Your task to perform on an android device: See recent photos Image 0: 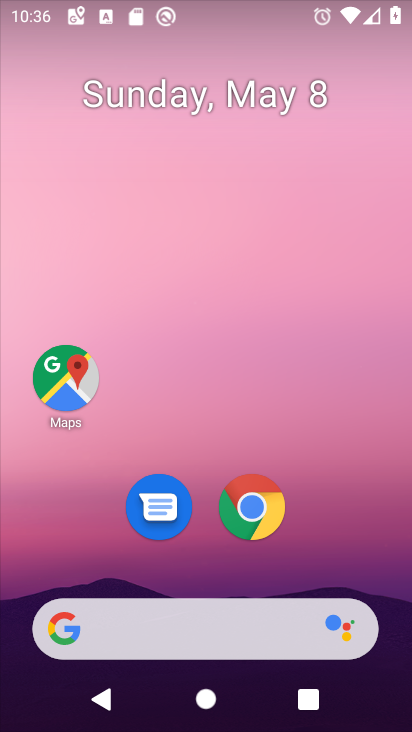
Step 0: drag from (221, 475) to (142, 11)
Your task to perform on an android device: See recent photos Image 1: 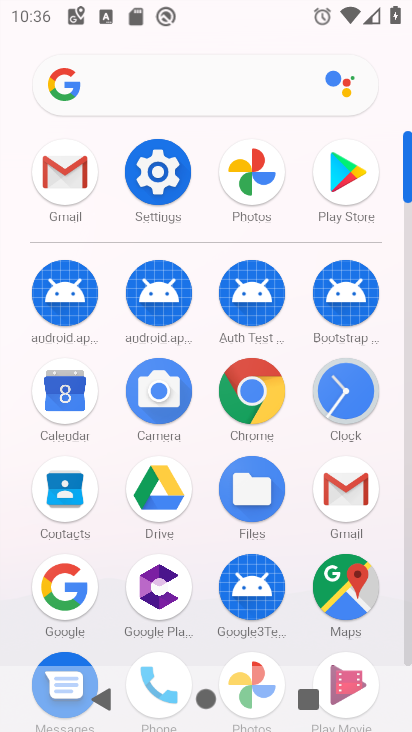
Step 1: click (249, 669)
Your task to perform on an android device: See recent photos Image 2: 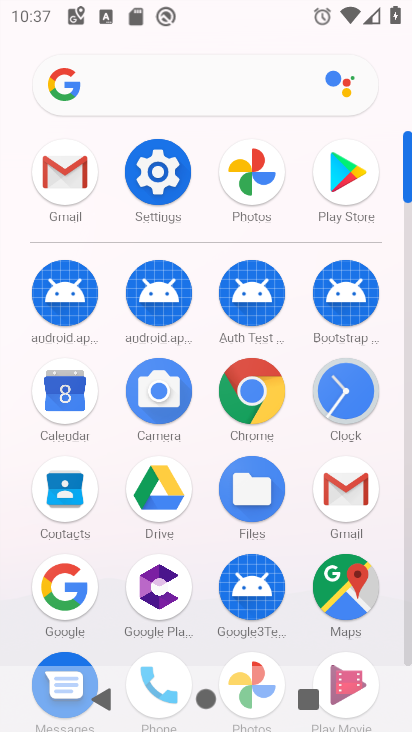
Step 2: click (253, 659)
Your task to perform on an android device: See recent photos Image 3: 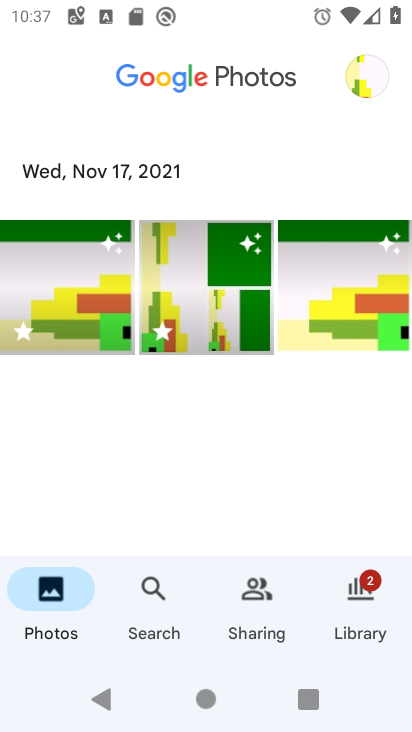
Step 3: click (225, 492)
Your task to perform on an android device: See recent photos Image 4: 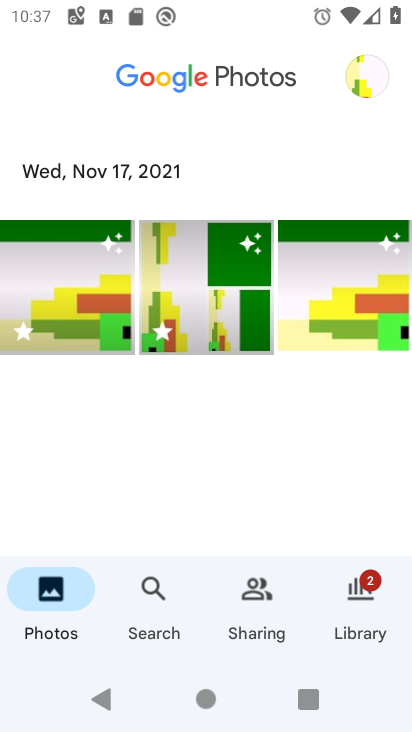
Step 4: click (158, 469)
Your task to perform on an android device: See recent photos Image 5: 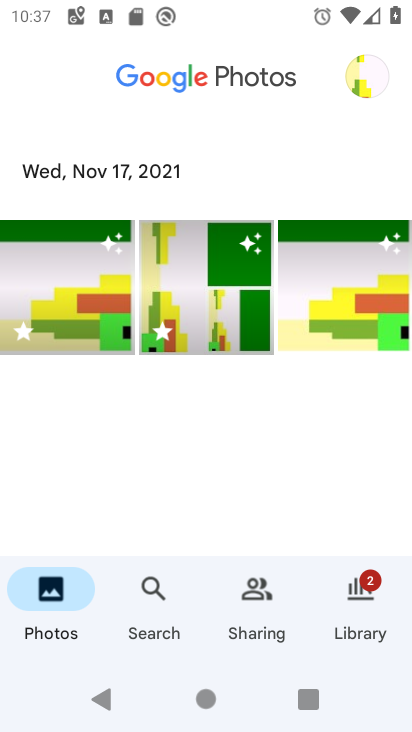
Step 5: task complete